Your task to perform on an android device: set the timer Image 0: 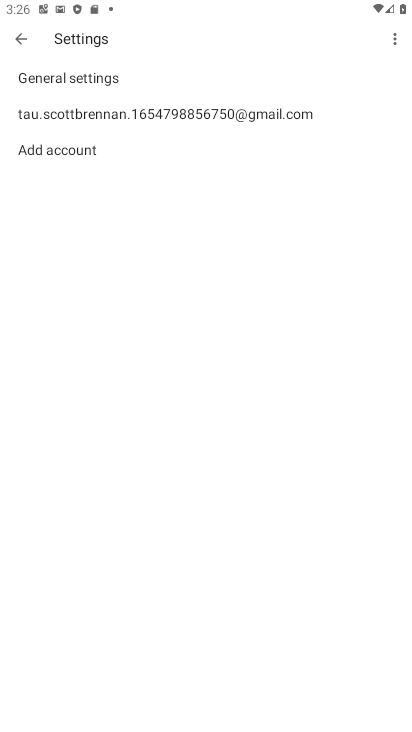
Step 0: press home button
Your task to perform on an android device: set the timer Image 1: 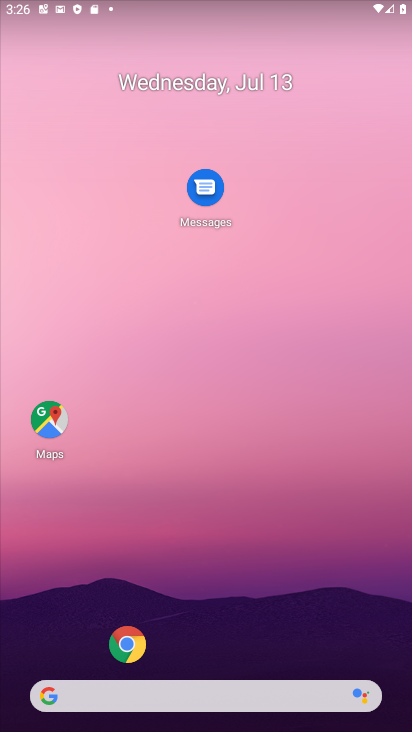
Step 1: drag from (53, 544) to (195, 26)
Your task to perform on an android device: set the timer Image 2: 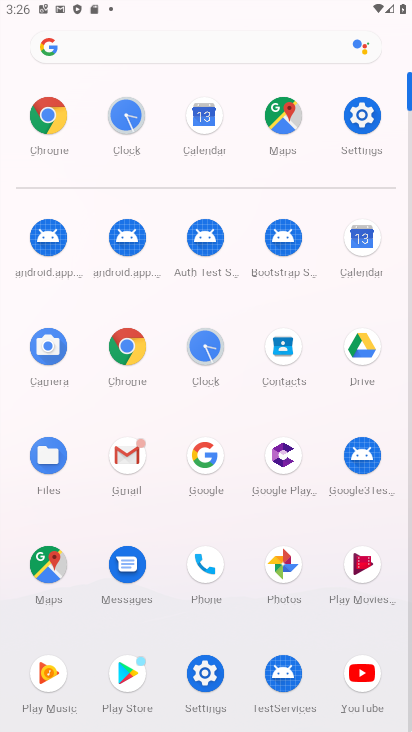
Step 2: click (116, 108)
Your task to perform on an android device: set the timer Image 3: 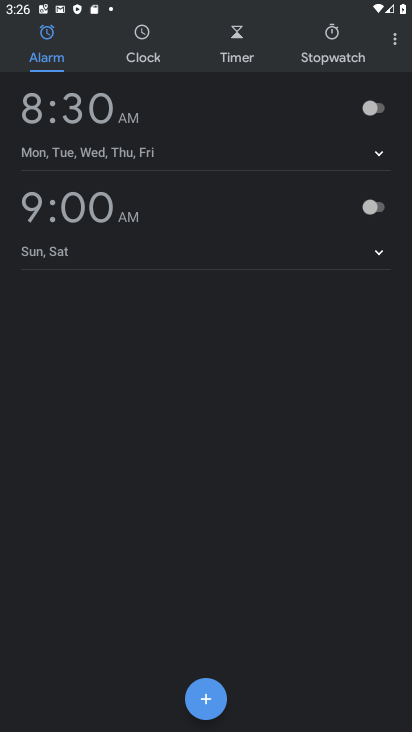
Step 3: click (246, 56)
Your task to perform on an android device: set the timer Image 4: 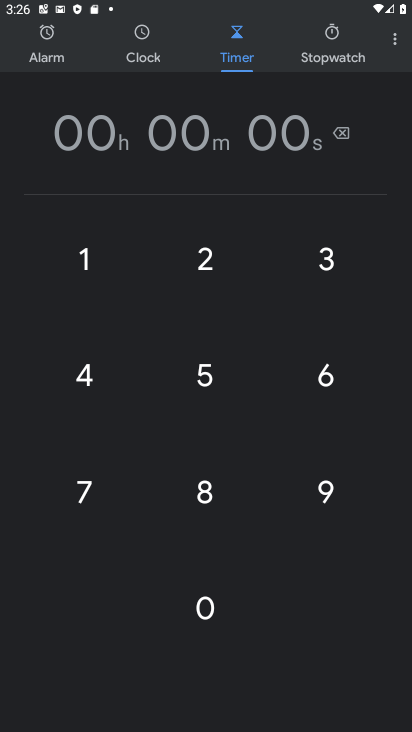
Step 4: click (195, 244)
Your task to perform on an android device: set the timer Image 5: 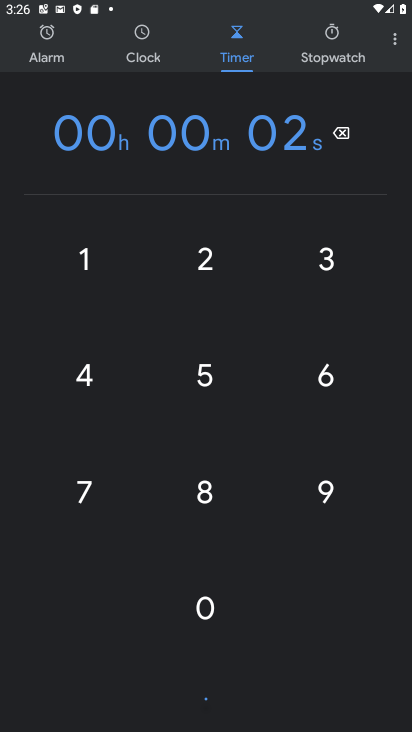
Step 5: click (217, 361)
Your task to perform on an android device: set the timer Image 6: 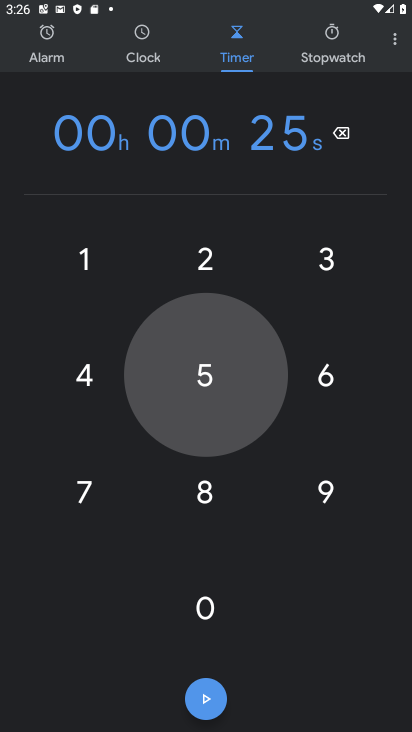
Step 6: click (233, 500)
Your task to perform on an android device: set the timer Image 7: 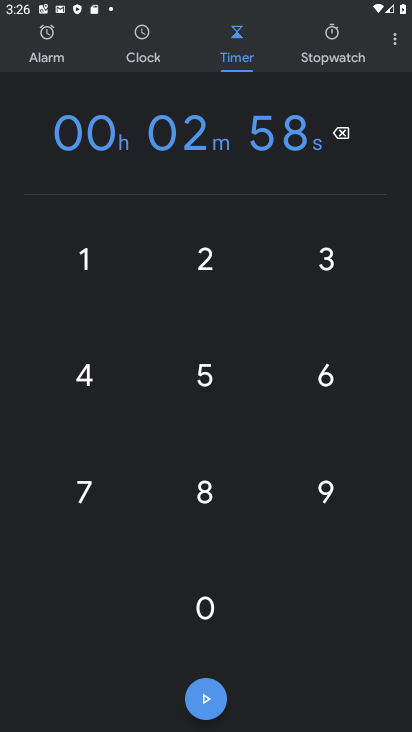
Step 7: click (211, 702)
Your task to perform on an android device: set the timer Image 8: 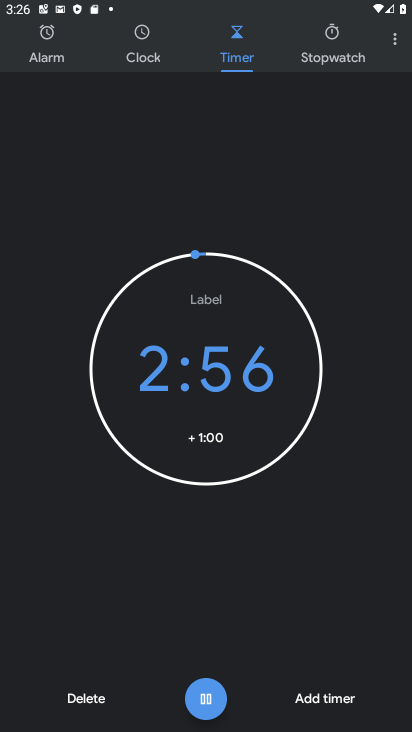
Step 8: click (207, 693)
Your task to perform on an android device: set the timer Image 9: 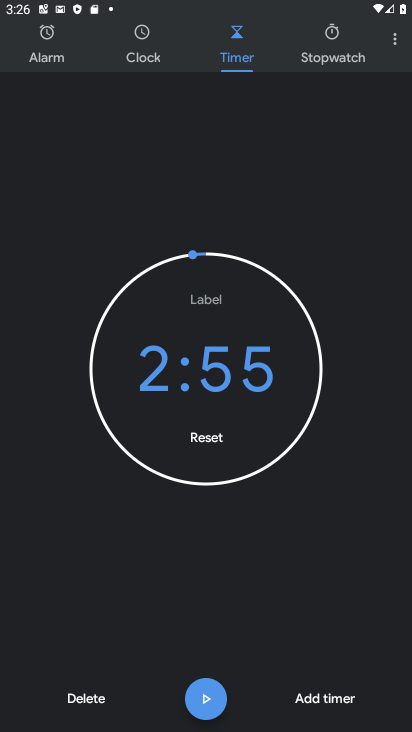
Step 9: task complete